Your task to perform on an android device: stop showing notifications on the lock screen Image 0: 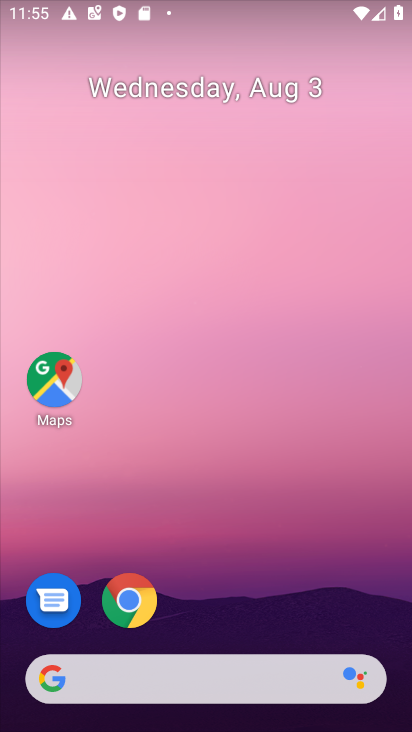
Step 0: press home button
Your task to perform on an android device: stop showing notifications on the lock screen Image 1: 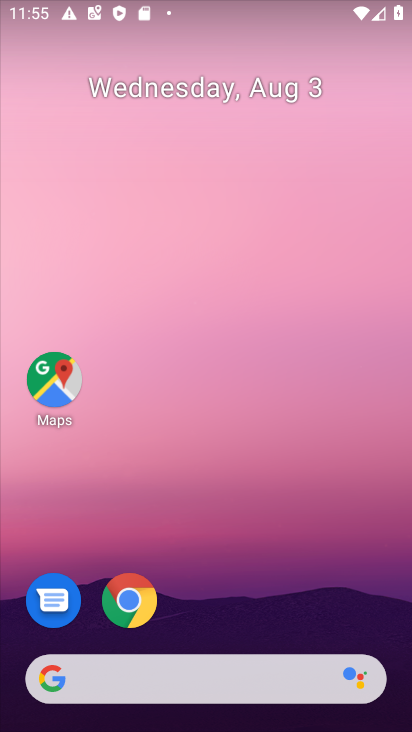
Step 1: drag from (155, 657) to (301, 201)
Your task to perform on an android device: stop showing notifications on the lock screen Image 2: 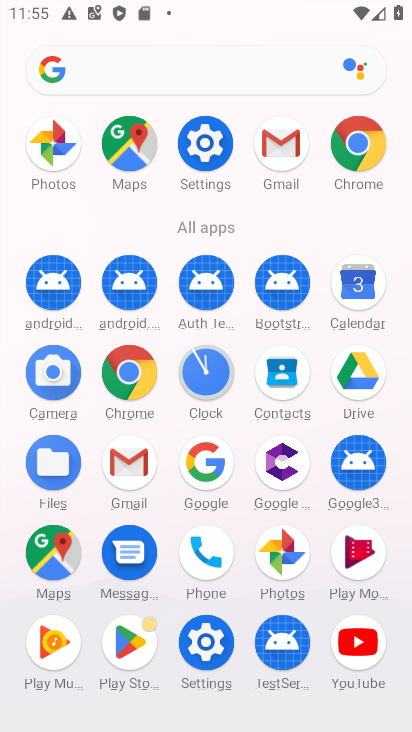
Step 2: click (213, 151)
Your task to perform on an android device: stop showing notifications on the lock screen Image 3: 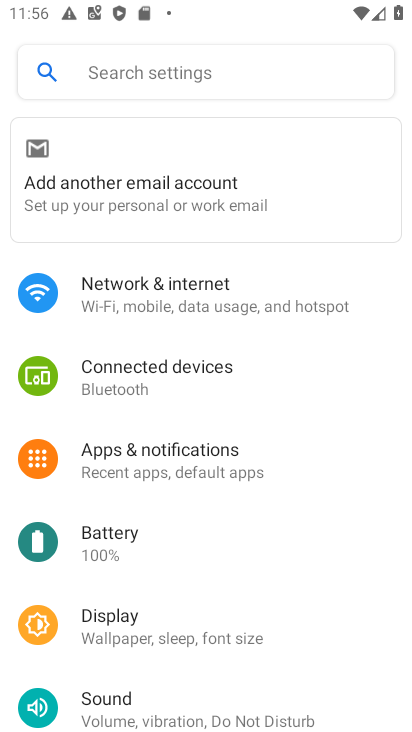
Step 3: click (184, 459)
Your task to perform on an android device: stop showing notifications on the lock screen Image 4: 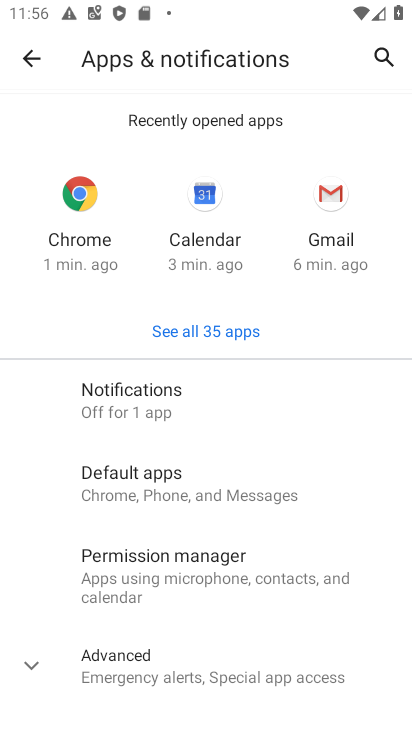
Step 4: drag from (198, 600) to (279, 392)
Your task to perform on an android device: stop showing notifications on the lock screen Image 5: 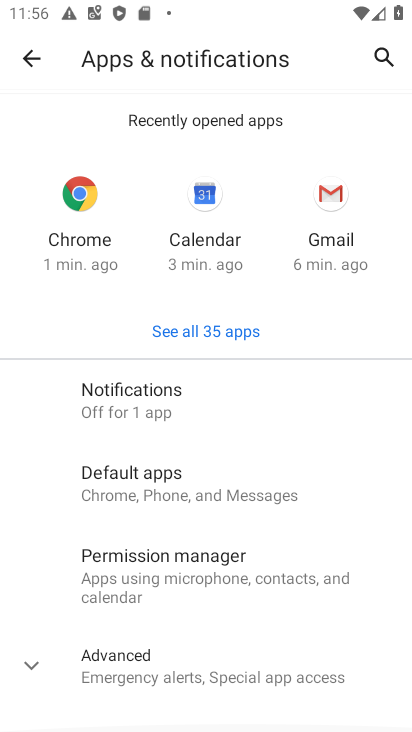
Step 5: click (163, 400)
Your task to perform on an android device: stop showing notifications on the lock screen Image 6: 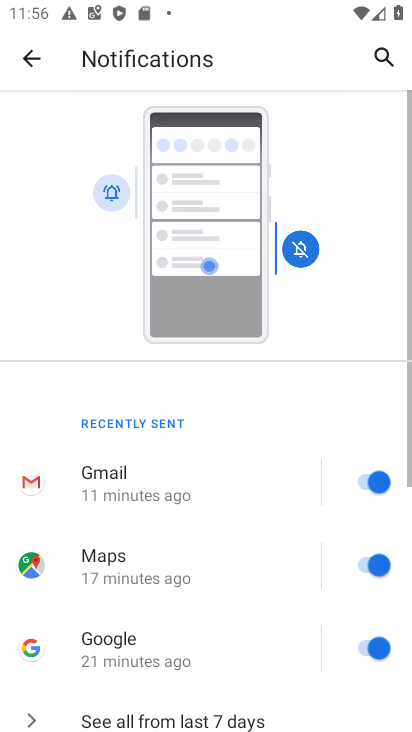
Step 6: drag from (196, 588) to (335, 170)
Your task to perform on an android device: stop showing notifications on the lock screen Image 7: 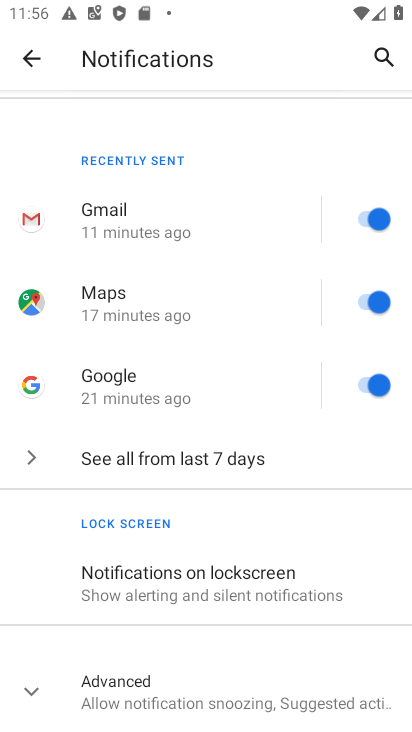
Step 7: drag from (223, 521) to (309, 166)
Your task to perform on an android device: stop showing notifications on the lock screen Image 8: 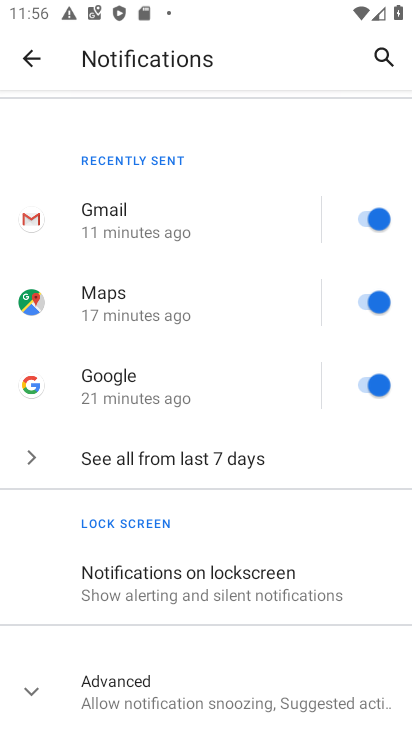
Step 8: click (220, 580)
Your task to perform on an android device: stop showing notifications on the lock screen Image 9: 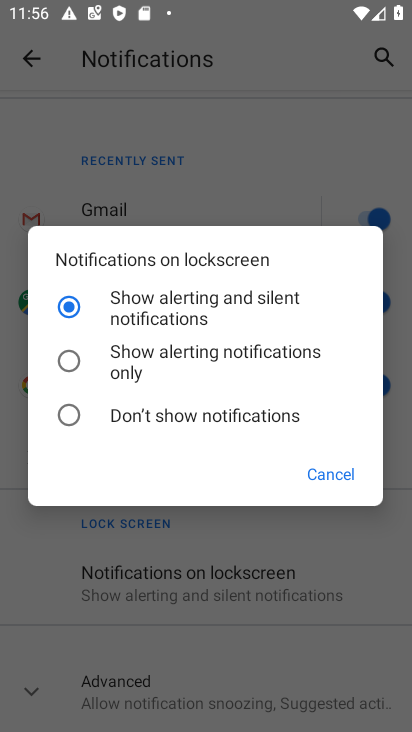
Step 9: click (68, 414)
Your task to perform on an android device: stop showing notifications on the lock screen Image 10: 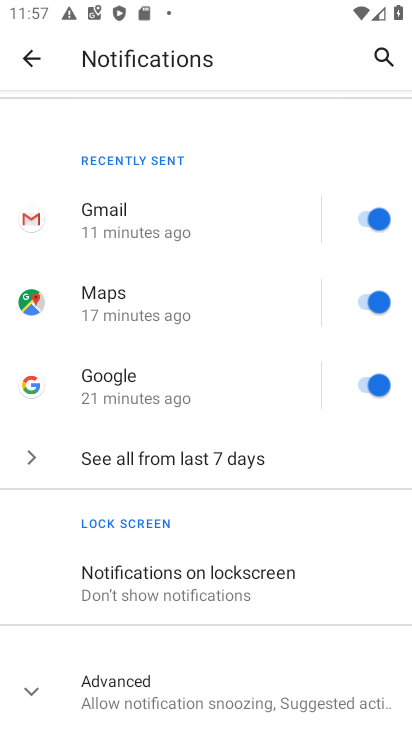
Step 10: task complete